Your task to perform on an android device: View the shopping cart on target. Image 0: 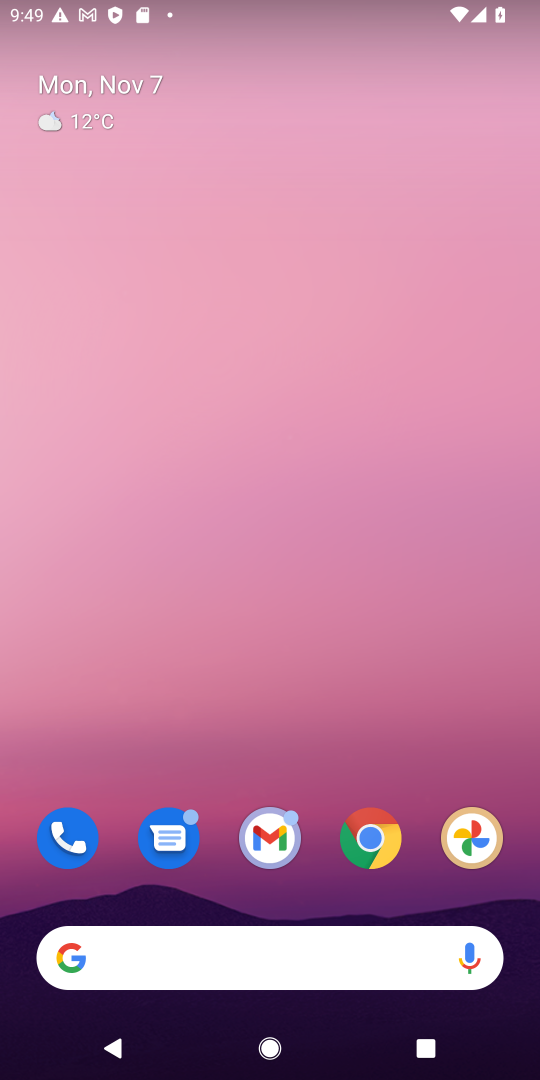
Step 0: click (380, 828)
Your task to perform on an android device: View the shopping cart on target. Image 1: 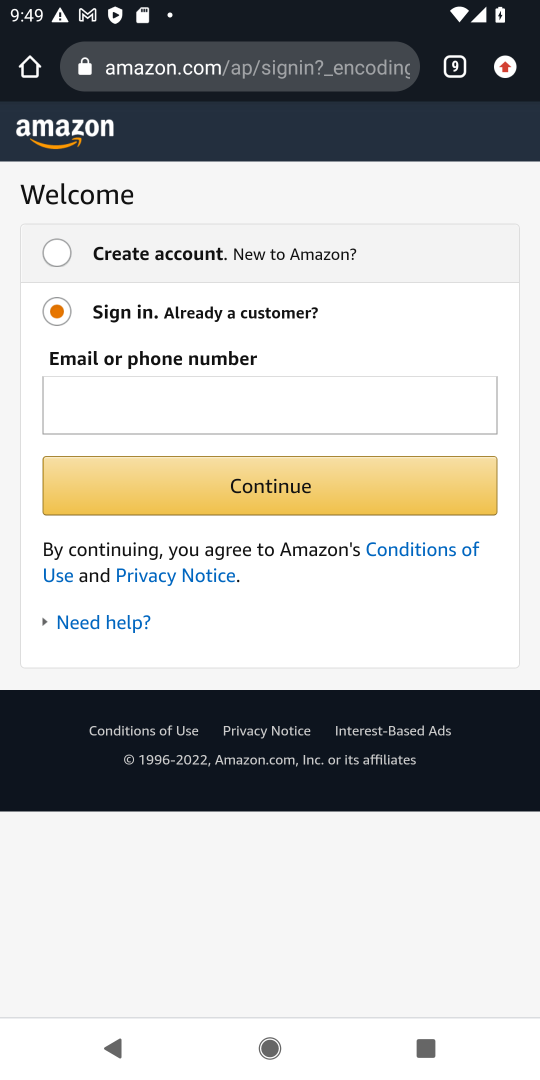
Step 1: click (450, 76)
Your task to perform on an android device: View the shopping cart on target. Image 2: 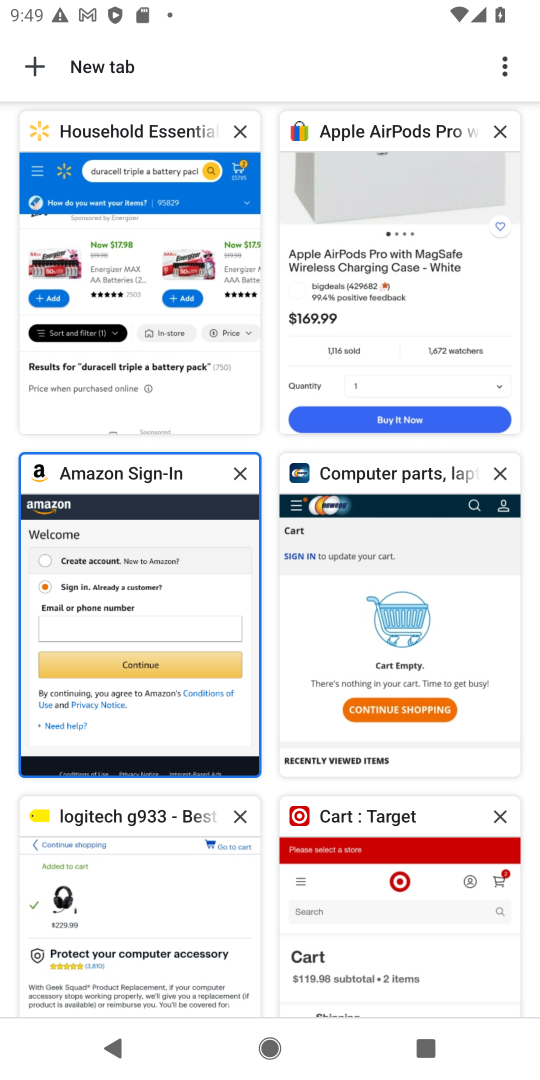
Step 2: click (368, 847)
Your task to perform on an android device: View the shopping cart on target. Image 3: 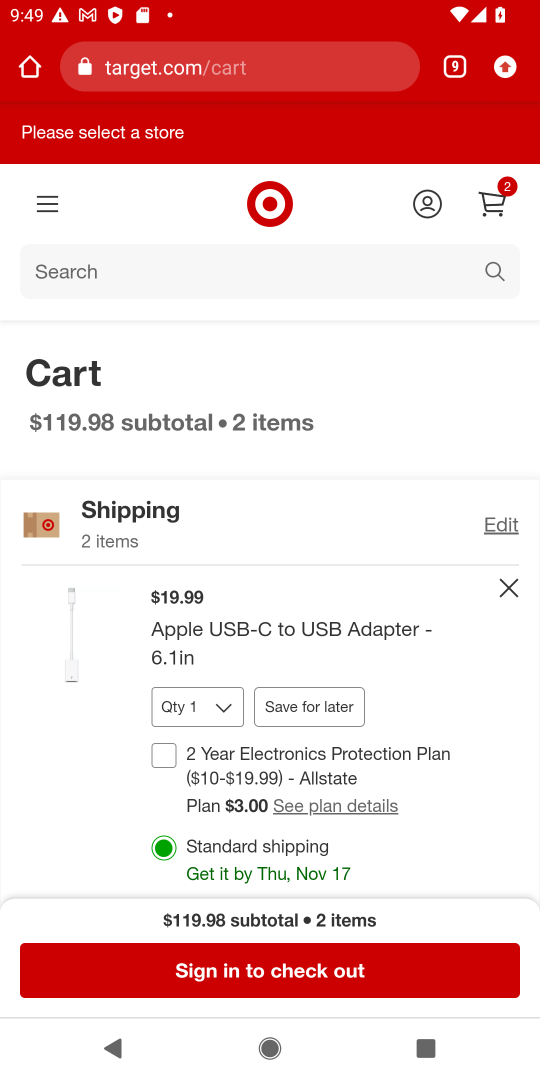
Step 3: task complete